Your task to perform on an android device: turn on improve location accuracy Image 0: 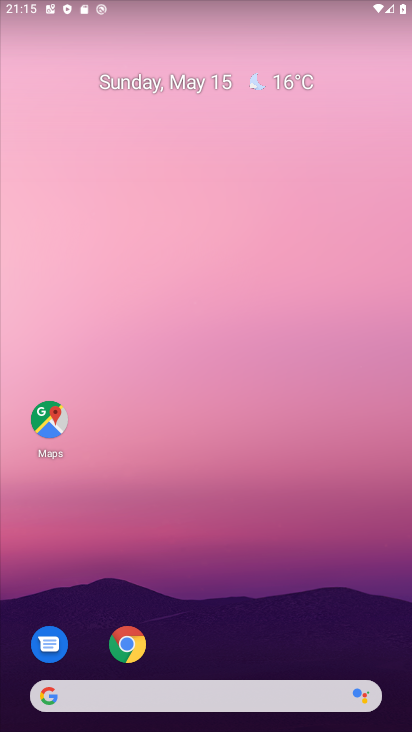
Step 0: drag from (240, 636) to (251, 167)
Your task to perform on an android device: turn on improve location accuracy Image 1: 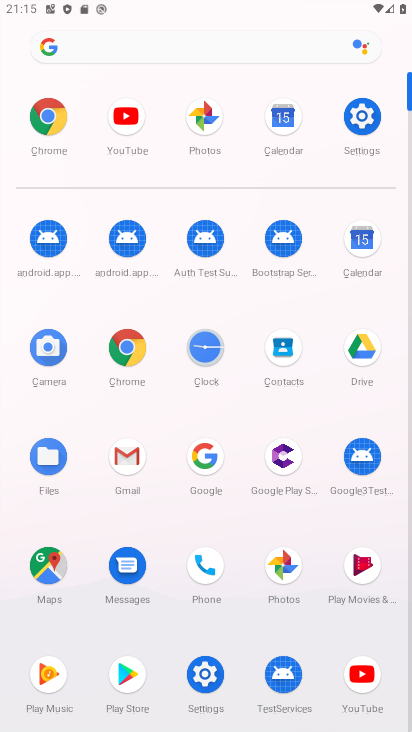
Step 1: click (363, 118)
Your task to perform on an android device: turn on improve location accuracy Image 2: 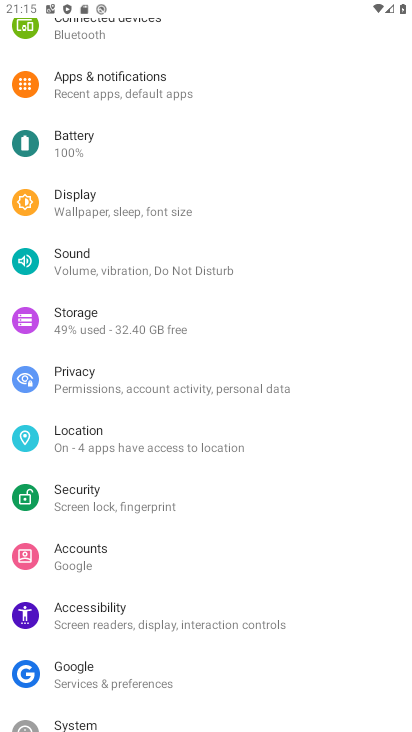
Step 2: click (108, 447)
Your task to perform on an android device: turn on improve location accuracy Image 3: 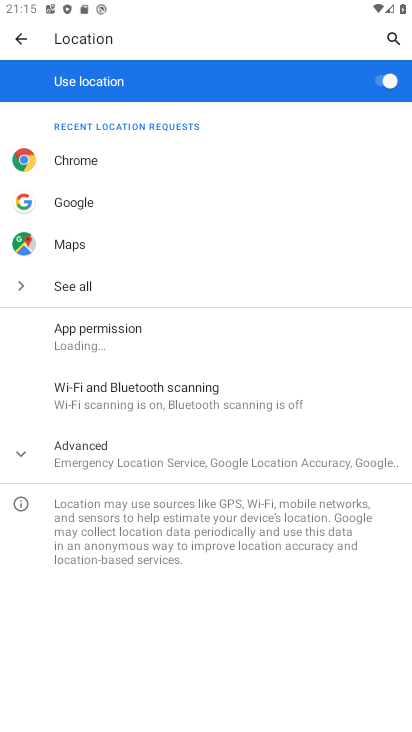
Step 3: click (146, 444)
Your task to perform on an android device: turn on improve location accuracy Image 4: 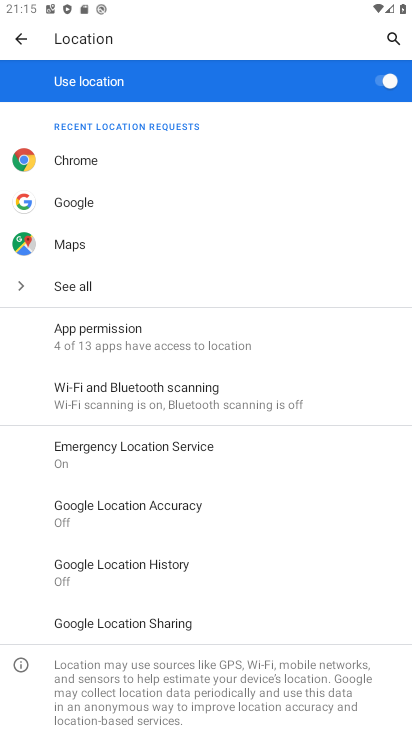
Step 4: click (194, 508)
Your task to perform on an android device: turn on improve location accuracy Image 5: 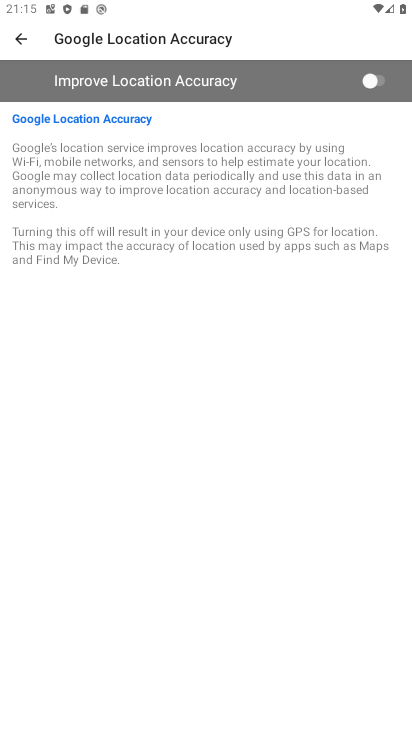
Step 5: click (355, 84)
Your task to perform on an android device: turn on improve location accuracy Image 6: 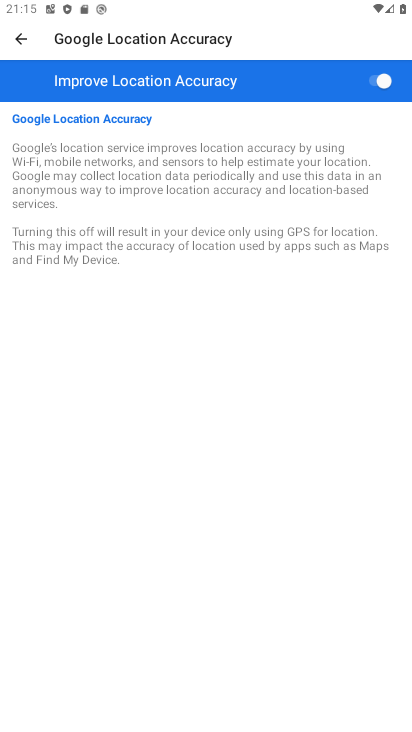
Step 6: task complete